Your task to perform on an android device: snooze an email in the gmail app Image 0: 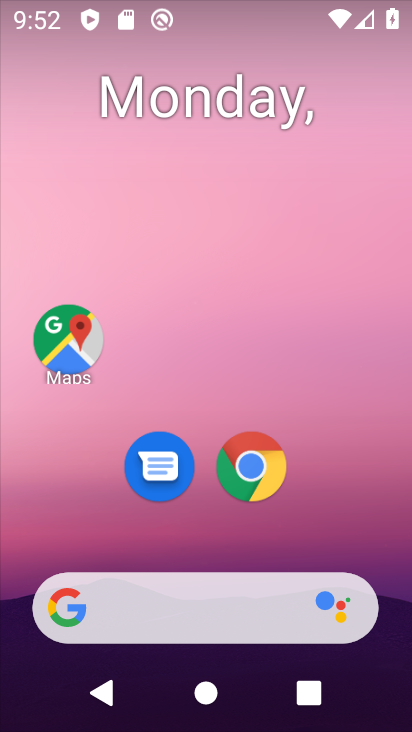
Step 0: drag from (222, 592) to (251, 288)
Your task to perform on an android device: snooze an email in the gmail app Image 1: 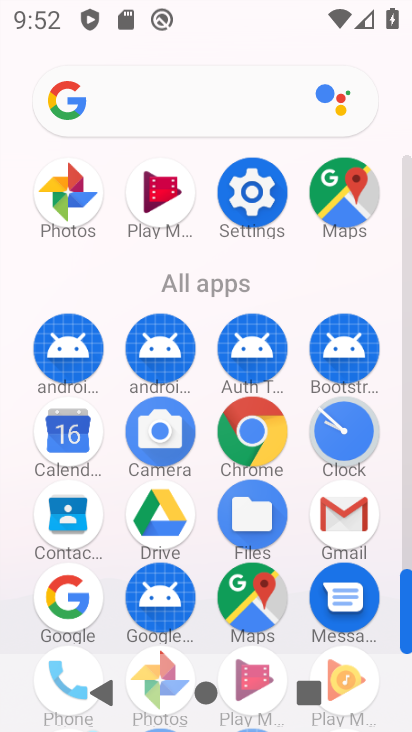
Step 1: click (335, 521)
Your task to perform on an android device: snooze an email in the gmail app Image 2: 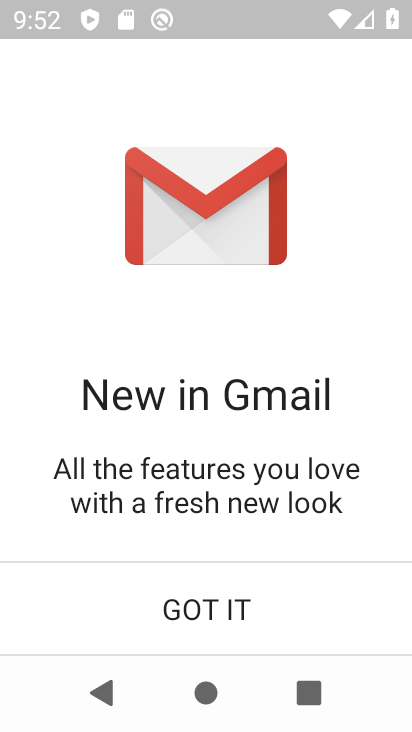
Step 2: click (226, 593)
Your task to perform on an android device: snooze an email in the gmail app Image 3: 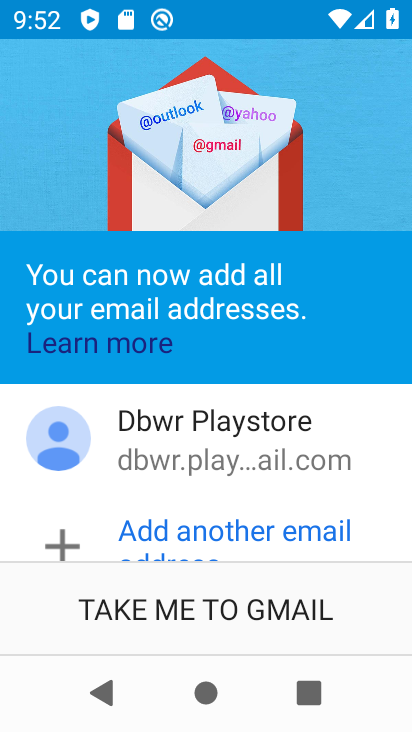
Step 3: click (247, 612)
Your task to perform on an android device: snooze an email in the gmail app Image 4: 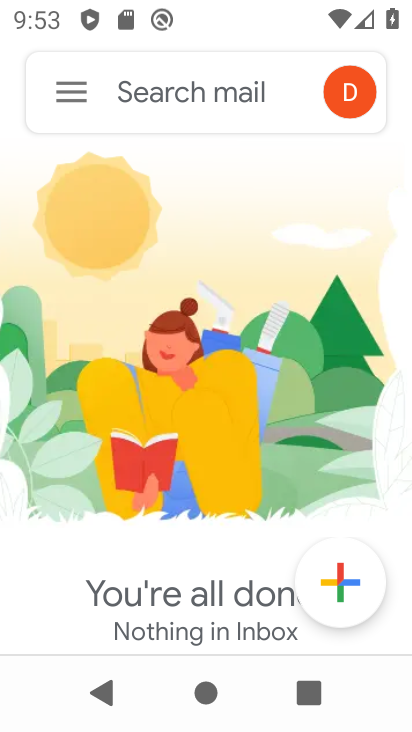
Step 4: click (79, 97)
Your task to perform on an android device: snooze an email in the gmail app Image 5: 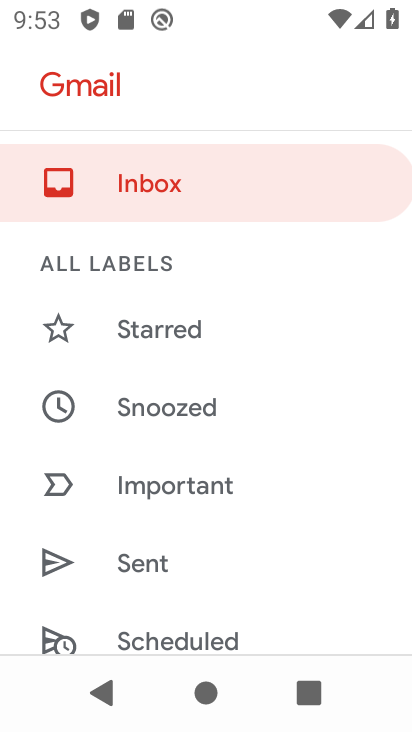
Step 5: drag from (180, 521) to (264, 145)
Your task to perform on an android device: snooze an email in the gmail app Image 6: 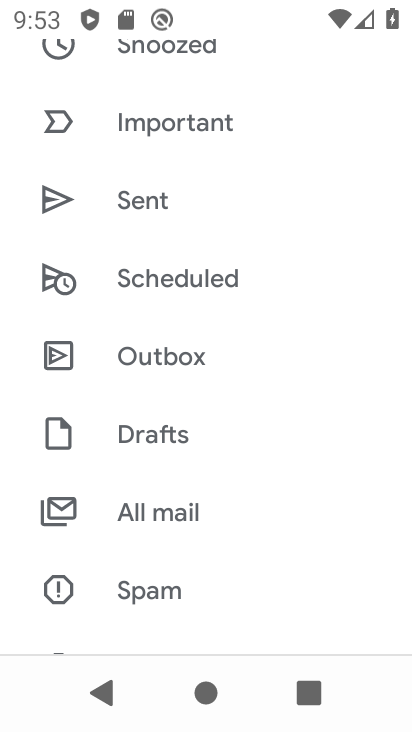
Step 6: click (153, 520)
Your task to perform on an android device: snooze an email in the gmail app Image 7: 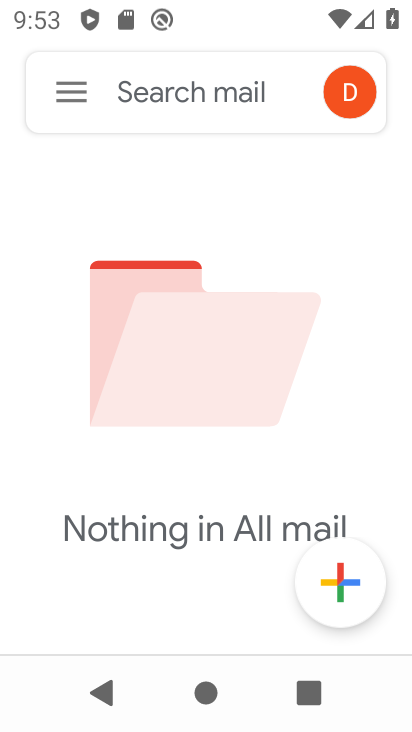
Step 7: task complete